Your task to perform on an android device: Open network settings Image 0: 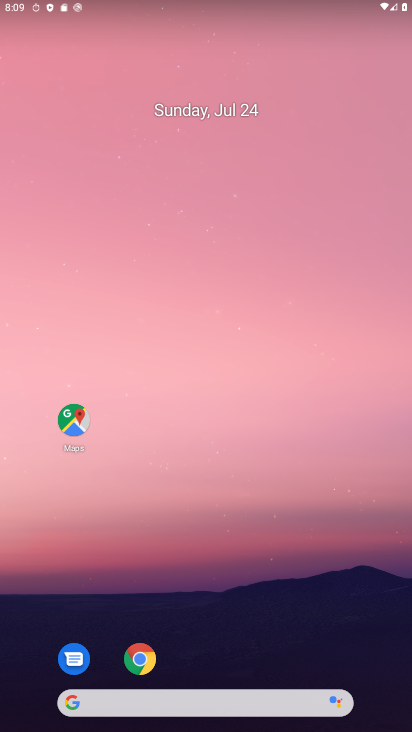
Step 0: drag from (230, 666) to (217, 279)
Your task to perform on an android device: Open network settings Image 1: 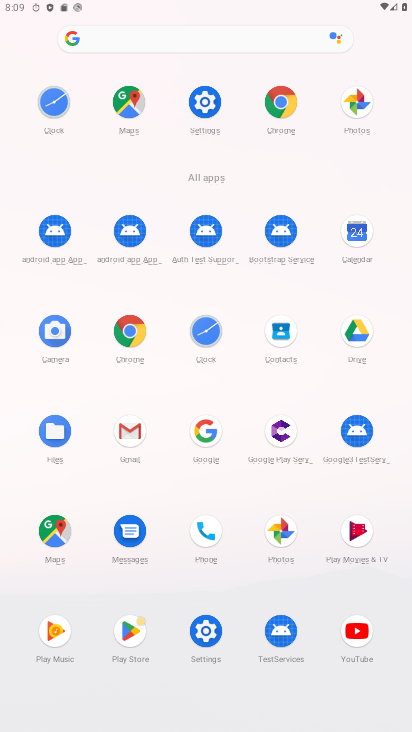
Step 1: click (213, 657)
Your task to perform on an android device: Open network settings Image 2: 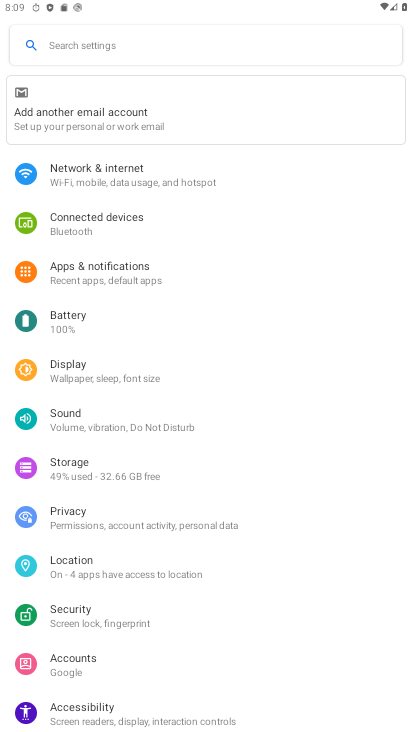
Step 2: click (157, 183)
Your task to perform on an android device: Open network settings Image 3: 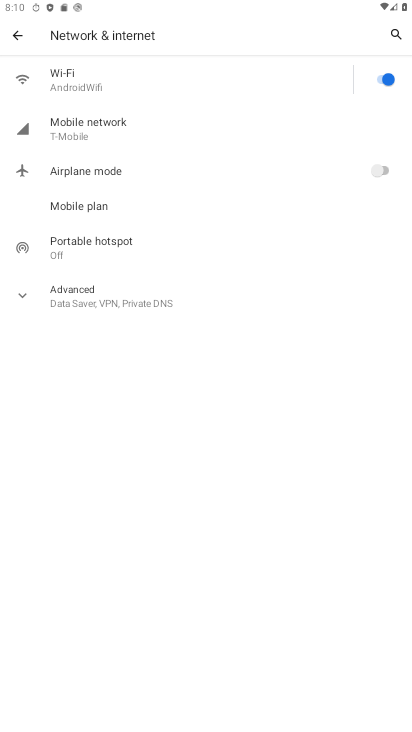
Step 3: task complete